Your task to perform on an android device: change alarm snooze length Image 0: 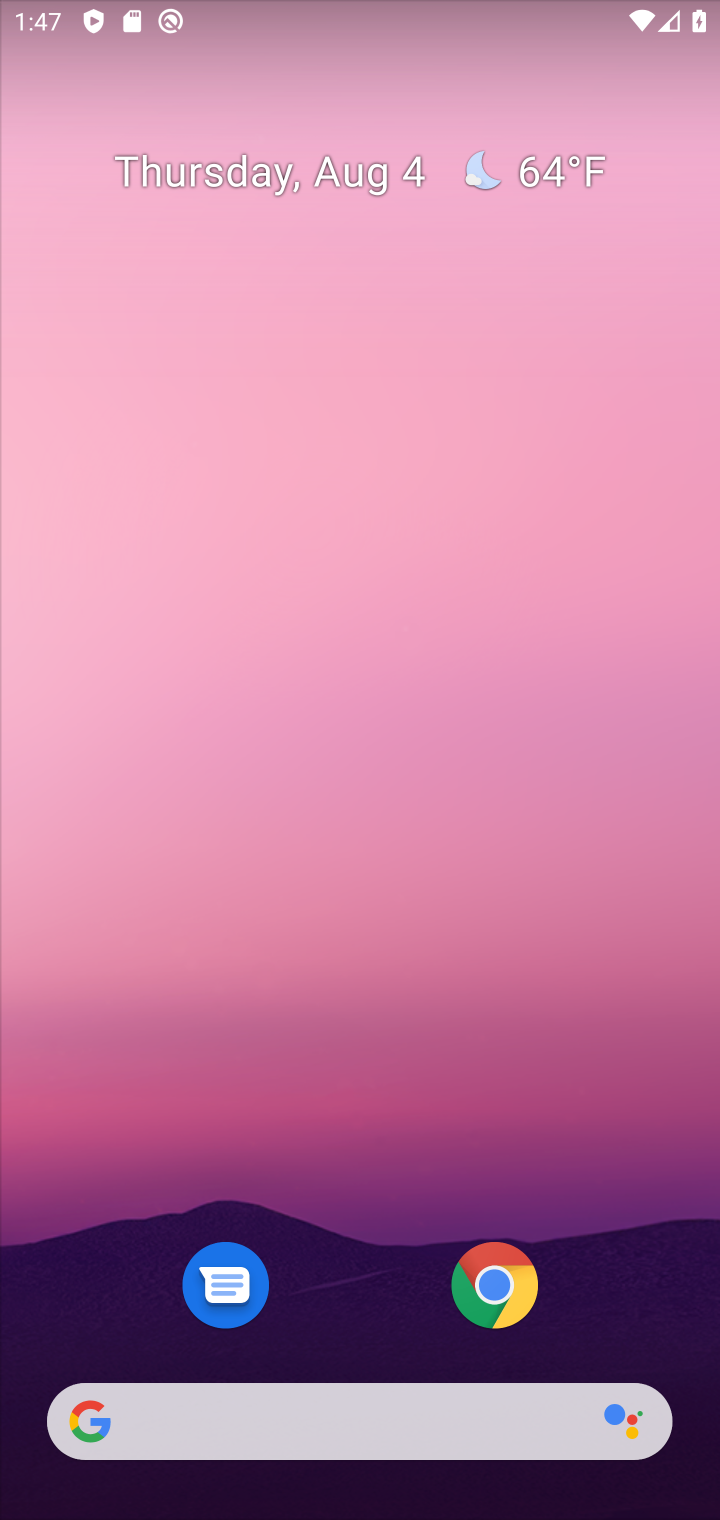
Step 0: drag from (674, 1314) to (574, 142)
Your task to perform on an android device: change alarm snooze length Image 1: 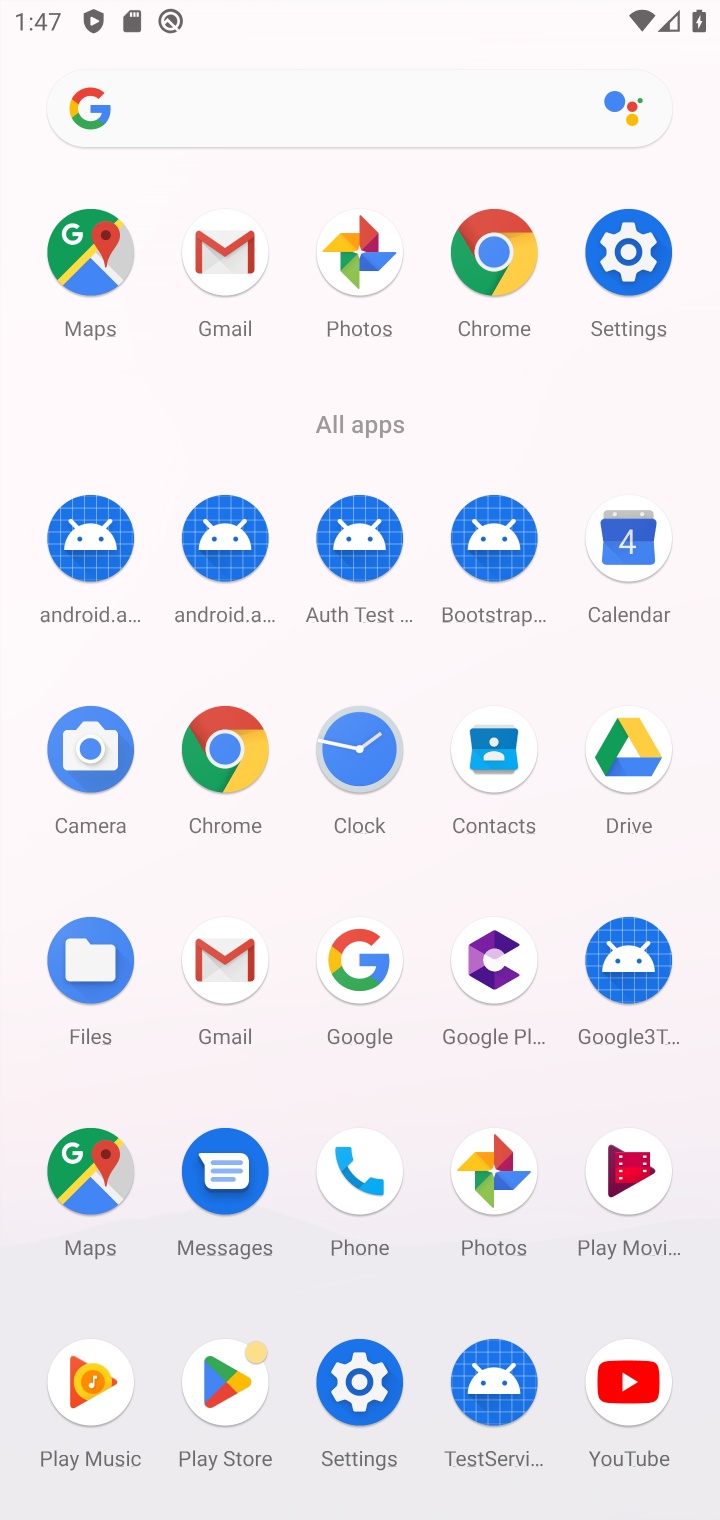
Step 1: click (360, 751)
Your task to perform on an android device: change alarm snooze length Image 2: 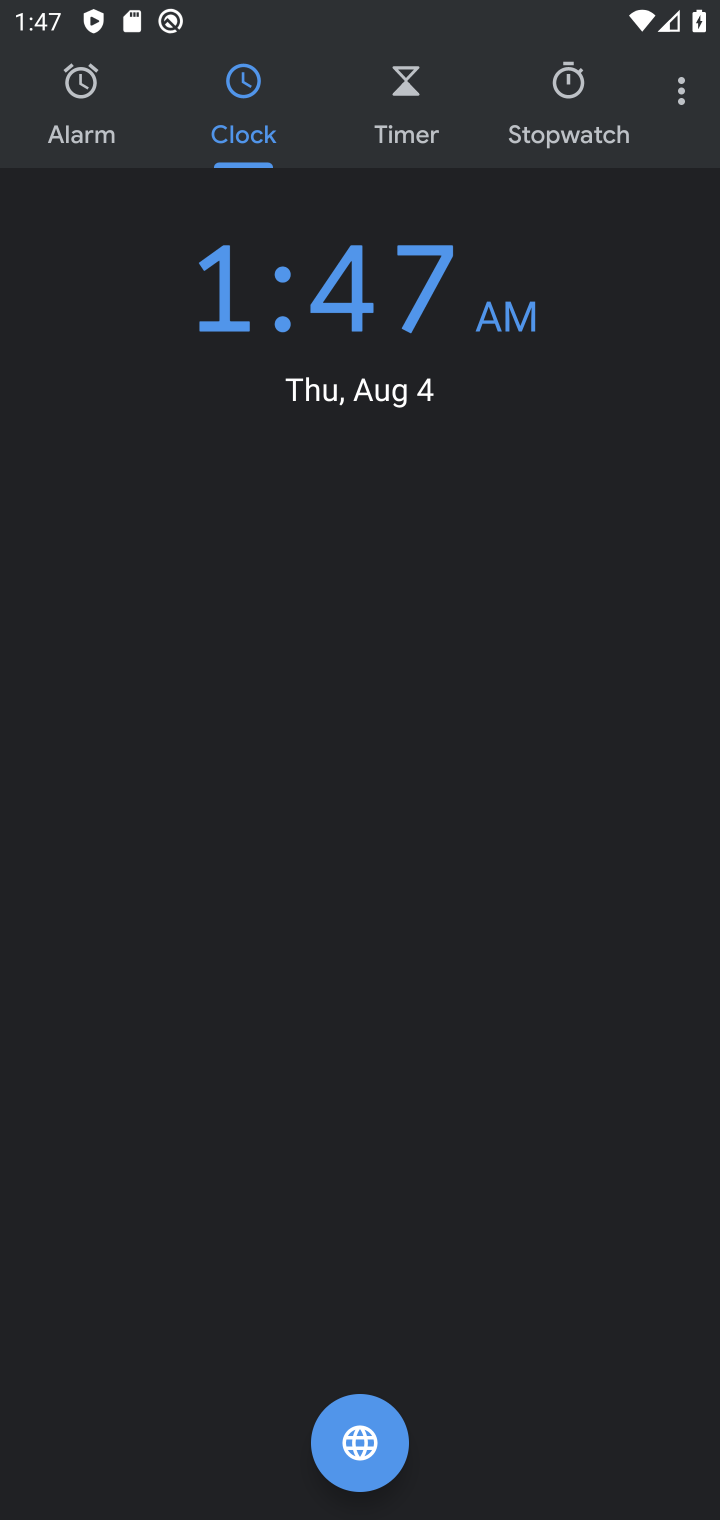
Step 2: click (674, 109)
Your task to perform on an android device: change alarm snooze length Image 3: 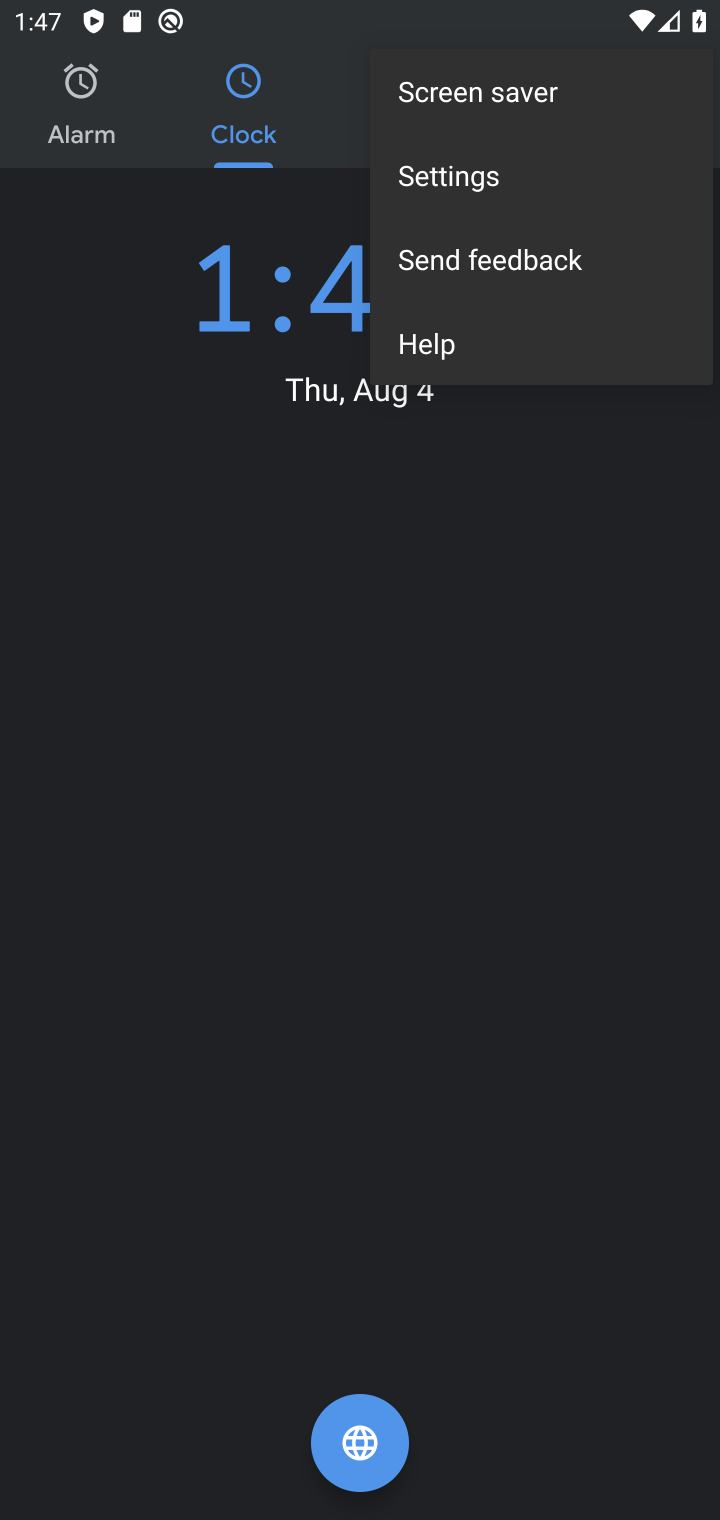
Step 3: click (456, 173)
Your task to perform on an android device: change alarm snooze length Image 4: 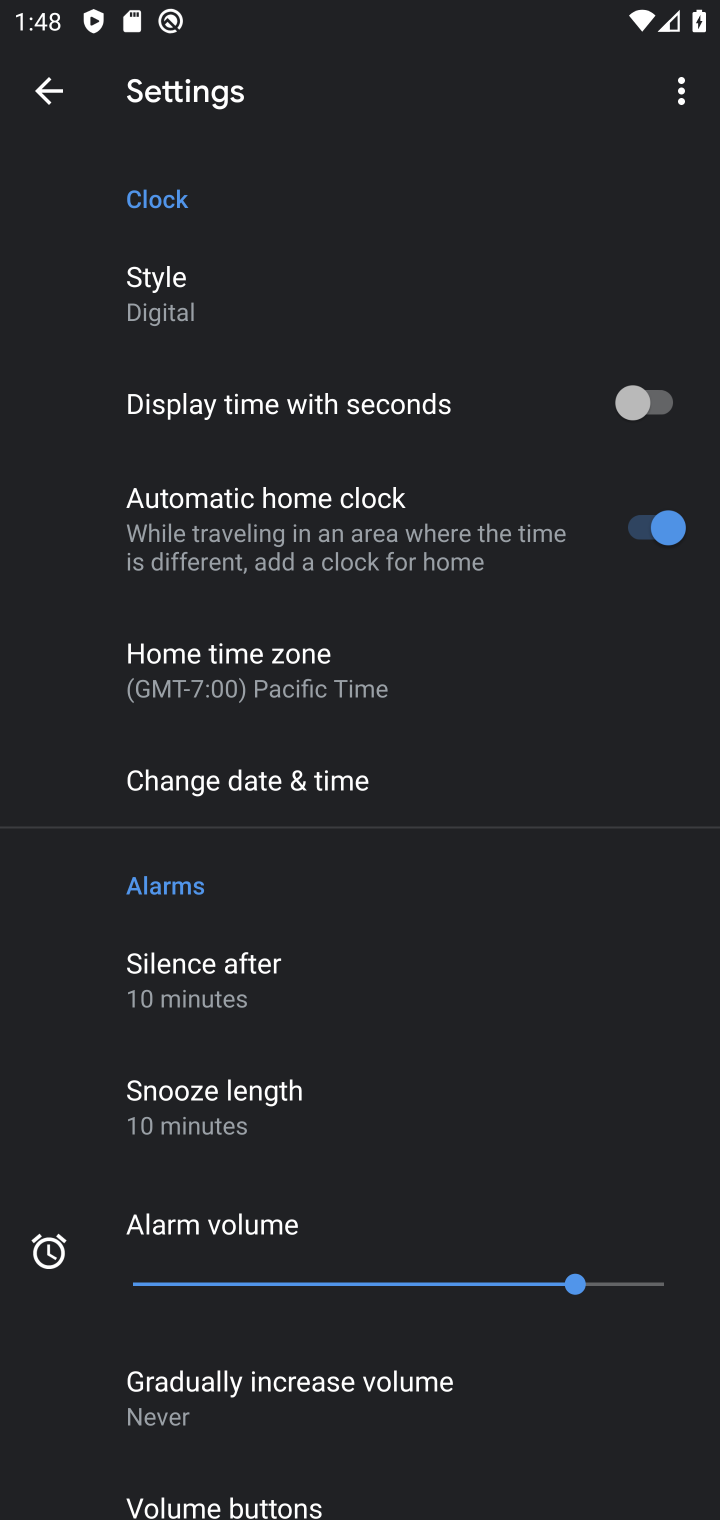
Step 4: click (210, 1108)
Your task to perform on an android device: change alarm snooze length Image 5: 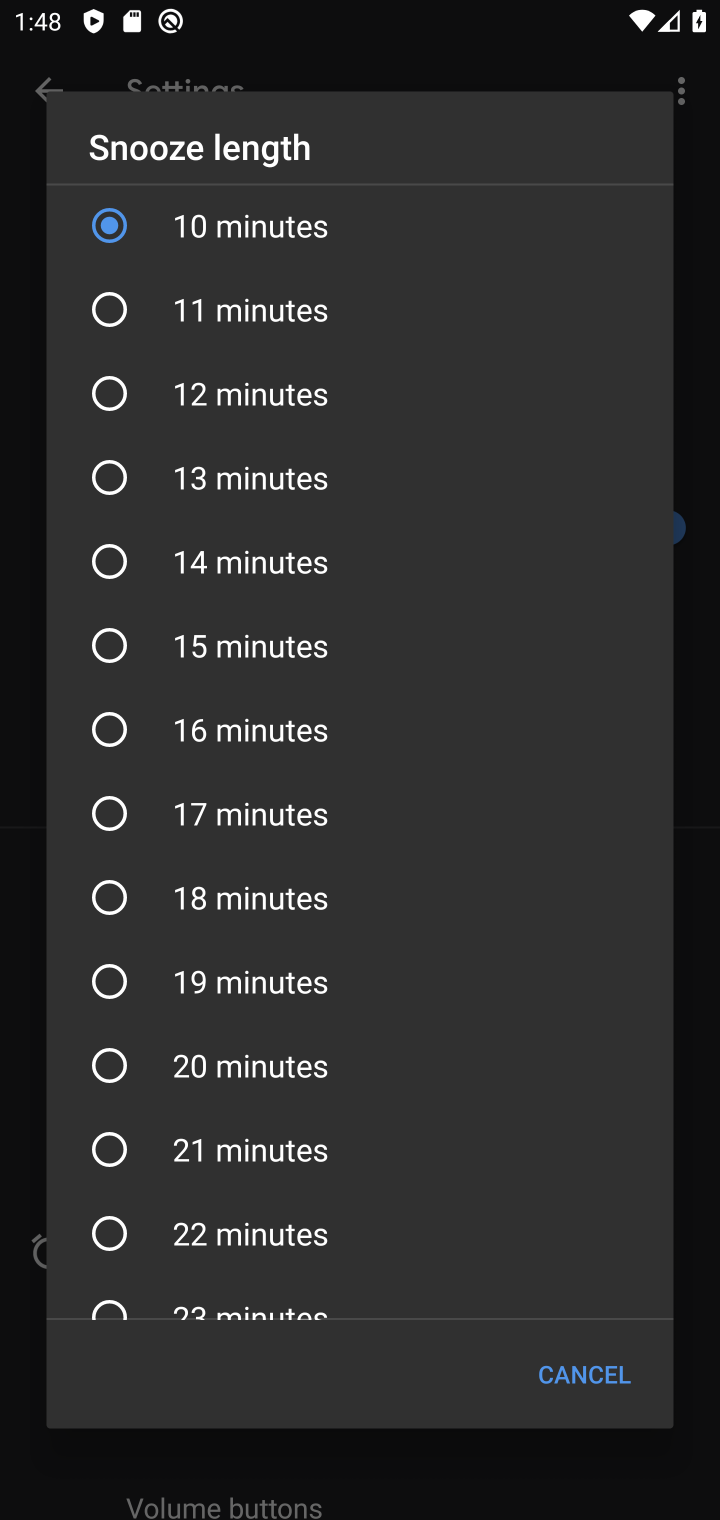
Step 5: click (111, 649)
Your task to perform on an android device: change alarm snooze length Image 6: 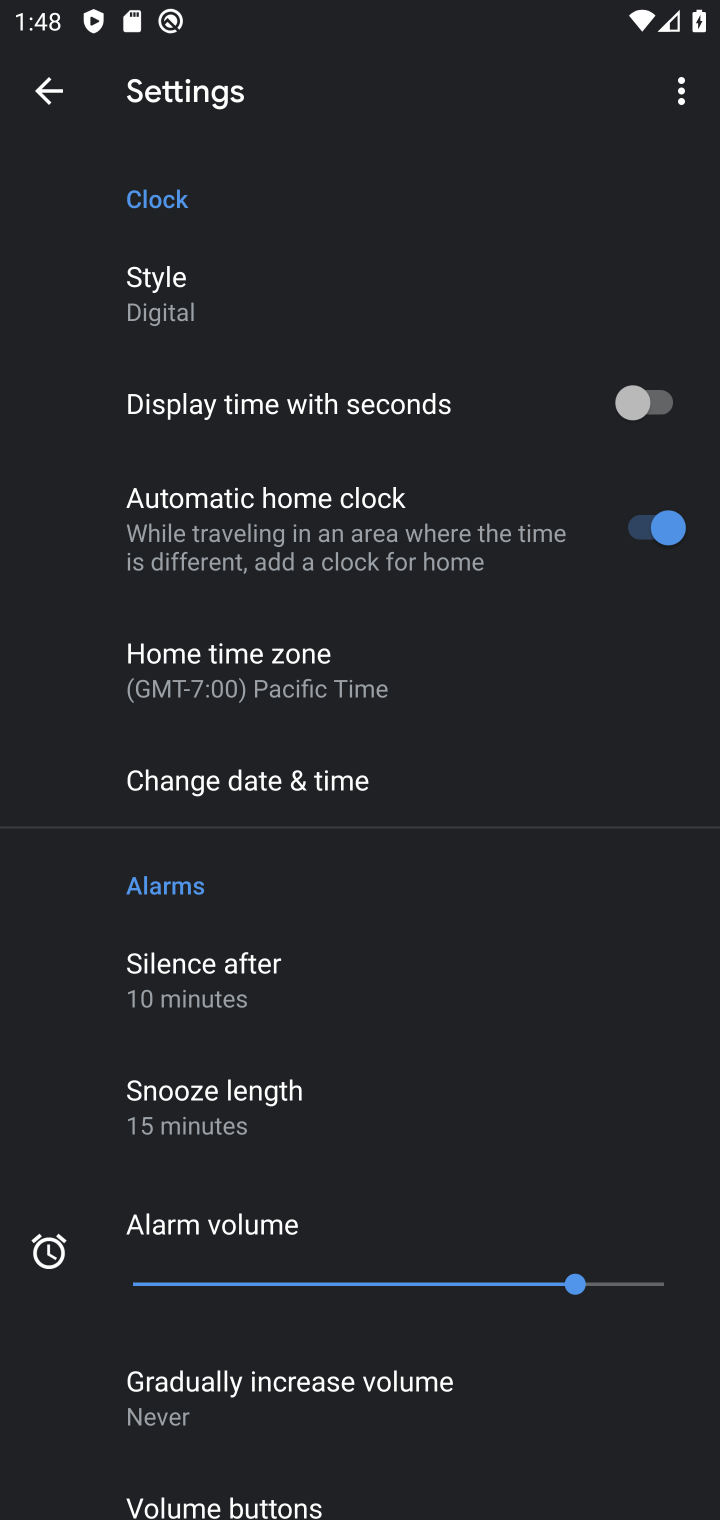
Step 6: task complete